Your task to perform on an android device: Go to Yahoo.com Image 0: 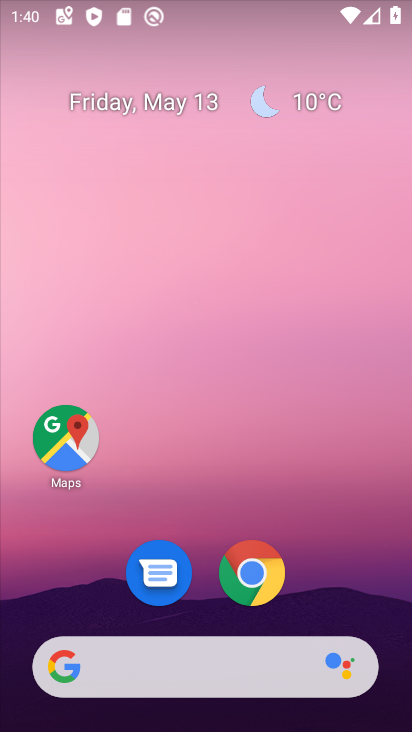
Step 0: drag from (310, 526) to (273, 30)
Your task to perform on an android device: Go to Yahoo.com Image 1: 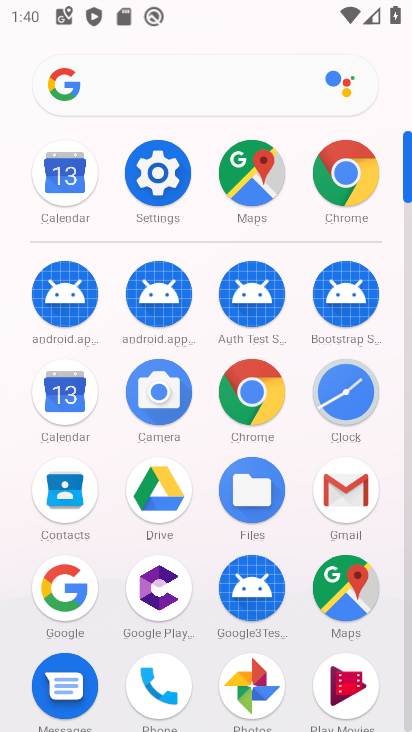
Step 1: drag from (12, 569) to (12, 275)
Your task to perform on an android device: Go to Yahoo.com Image 2: 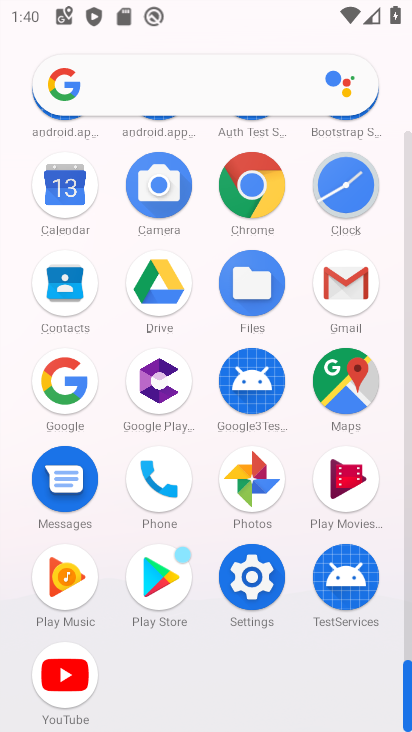
Step 2: click (253, 182)
Your task to perform on an android device: Go to Yahoo.com Image 3: 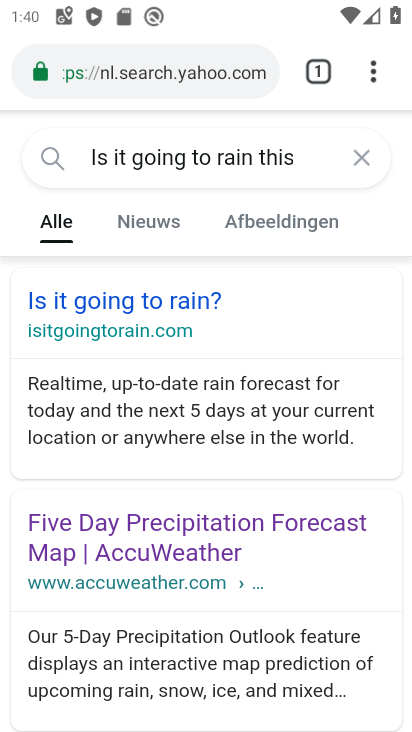
Step 3: click (173, 67)
Your task to perform on an android device: Go to Yahoo.com Image 4: 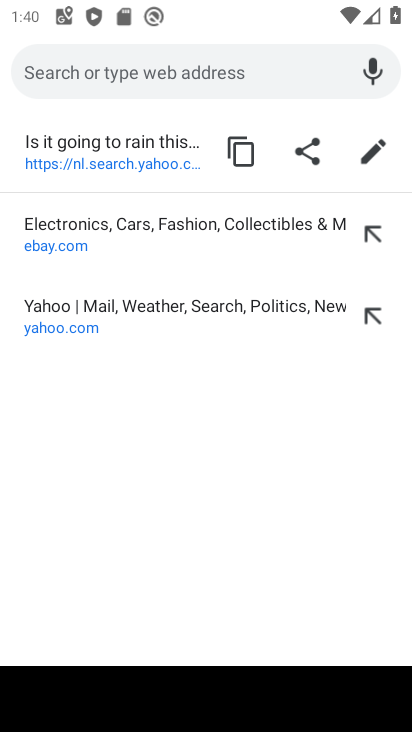
Step 4: type " Yahoo.com"
Your task to perform on an android device: Go to Yahoo.com Image 5: 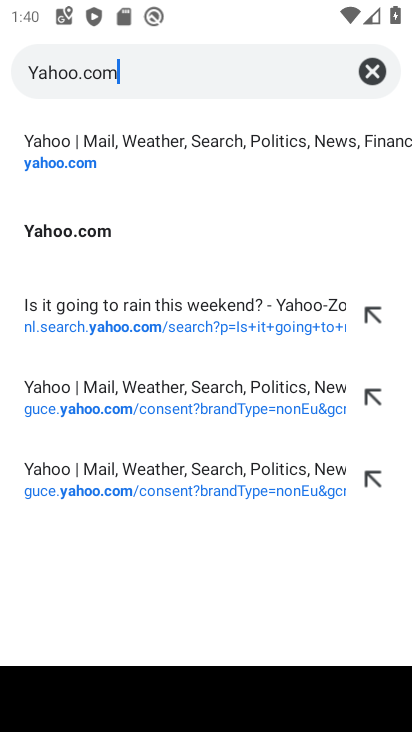
Step 5: type ""
Your task to perform on an android device: Go to Yahoo.com Image 6: 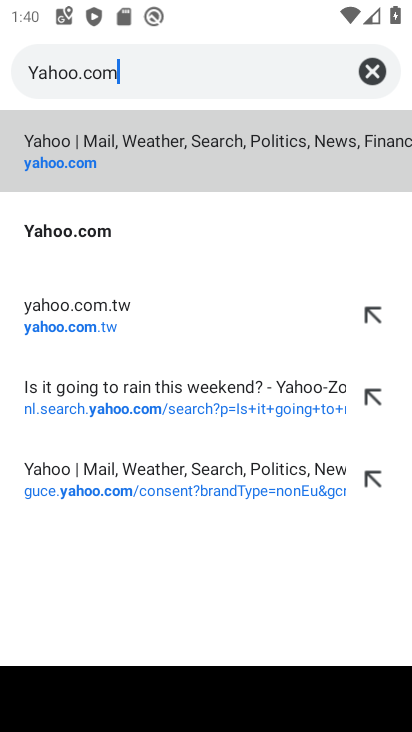
Step 6: click (97, 145)
Your task to perform on an android device: Go to Yahoo.com Image 7: 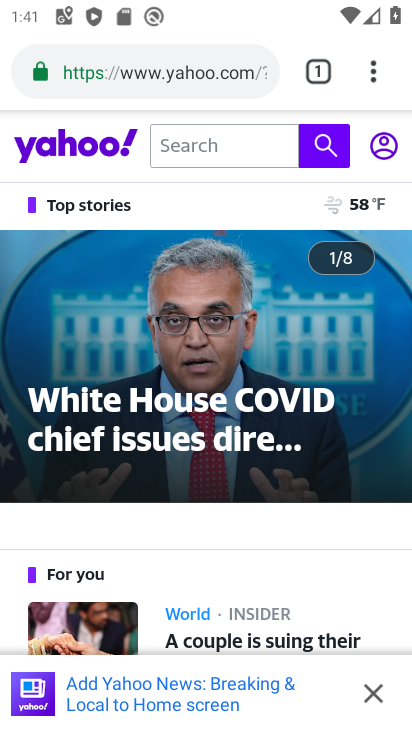
Step 7: task complete